Your task to perform on an android device: open app "Expedia: Hotels, Flights & Car" (install if not already installed) and go to login screen Image 0: 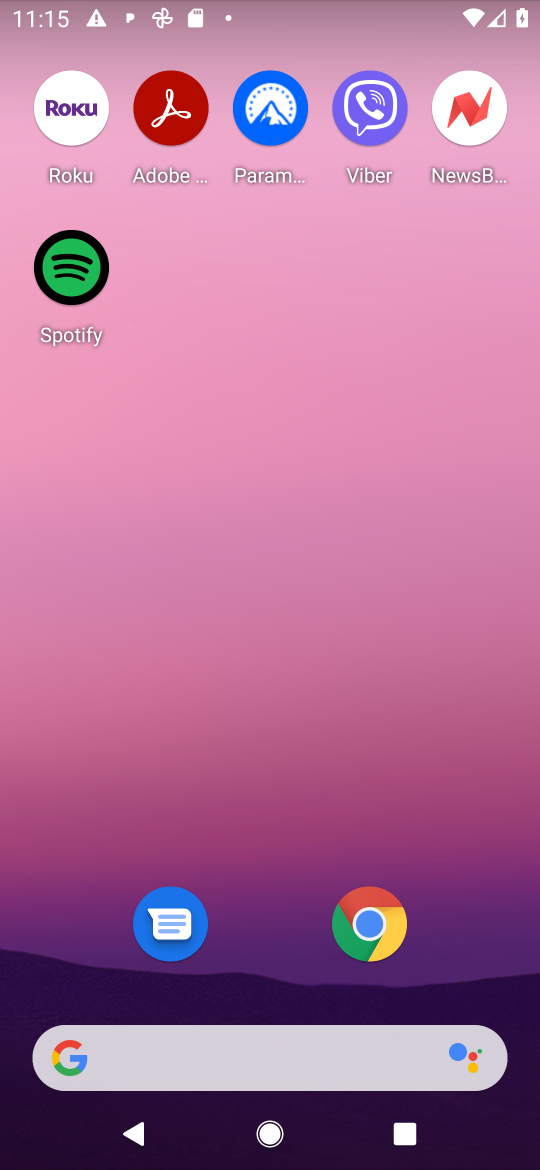
Step 0: press home button
Your task to perform on an android device: open app "Expedia: Hotels, Flights & Car" (install if not already installed) and go to login screen Image 1: 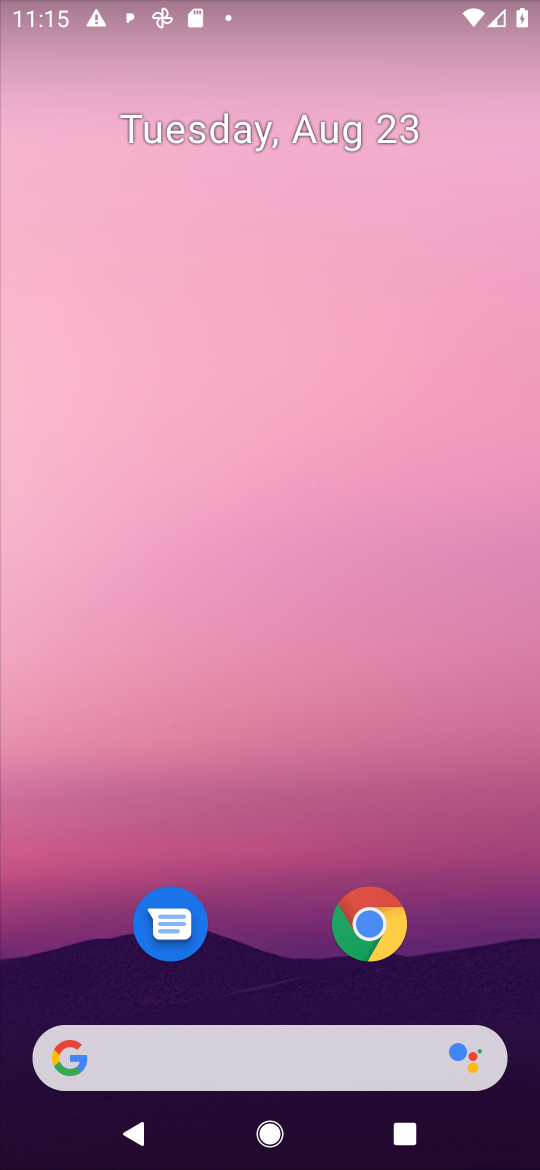
Step 1: drag from (477, 969) to (485, 166)
Your task to perform on an android device: open app "Expedia: Hotels, Flights & Car" (install if not already installed) and go to login screen Image 2: 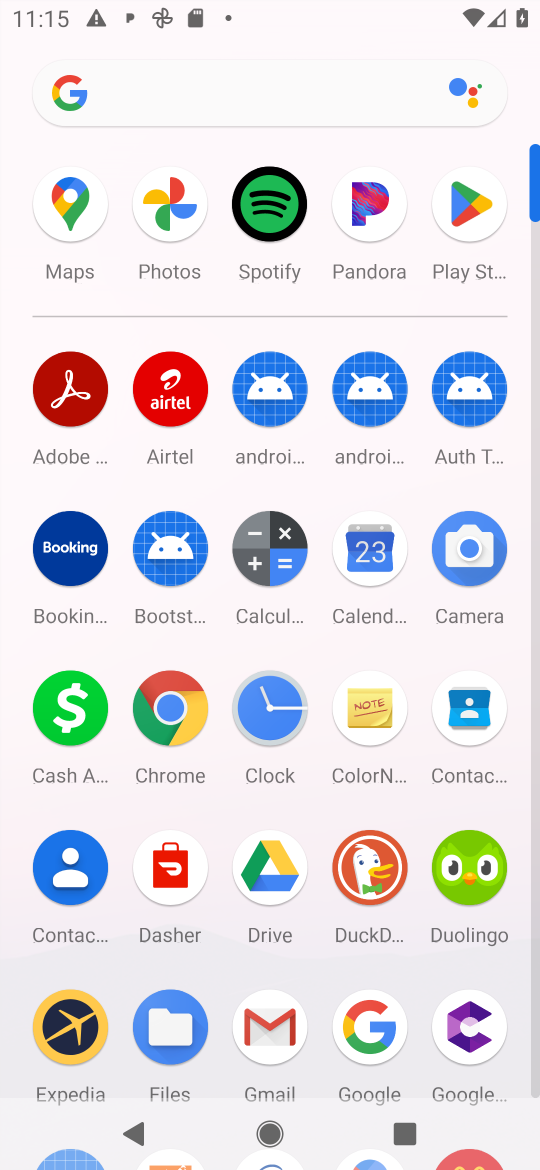
Step 2: click (465, 198)
Your task to perform on an android device: open app "Expedia: Hotels, Flights & Car" (install if not already installed) and go to login screen Image 3: 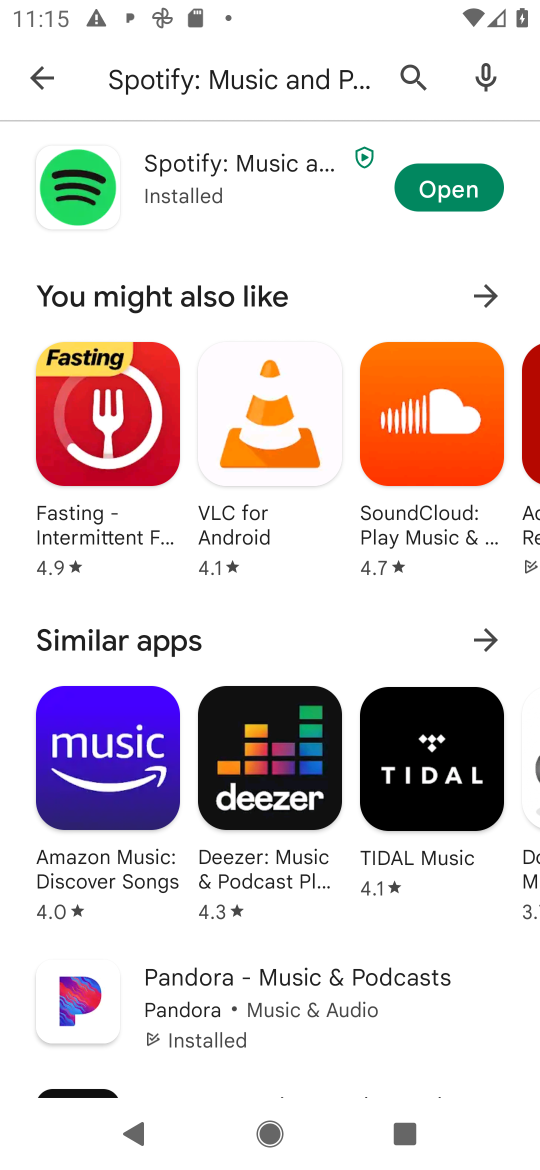
Step 3: press back button
Your task to perform on an android device: open app "Expedia: Hotels, Flights & Car" (install if not already installed) and go to login screen Image 4: 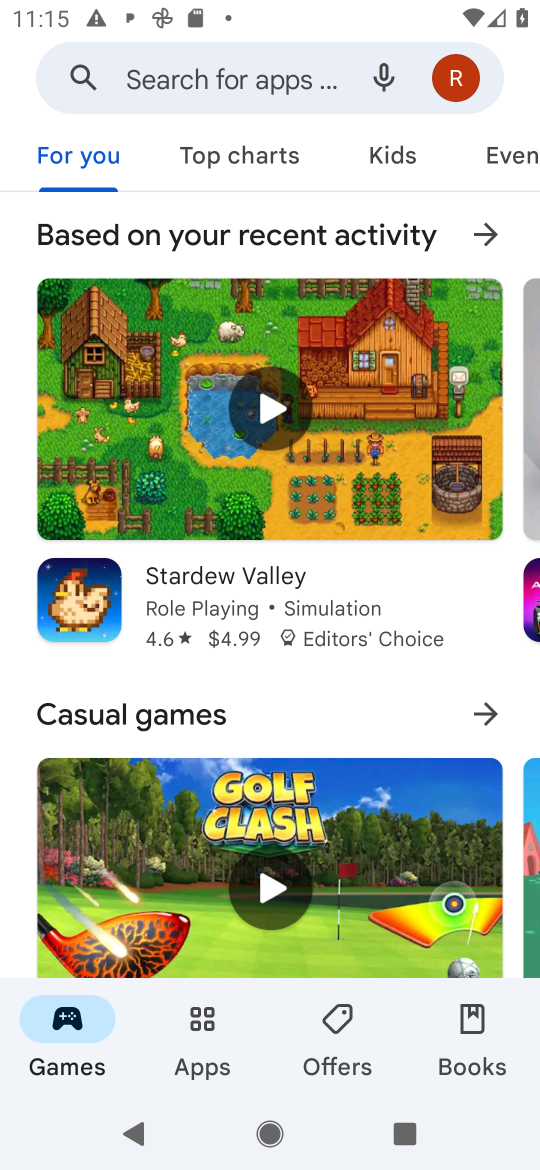
Step 4: click (247, 89)
Your task to perform on an android device: open app "Expedia: Hotels, Flights & Car" (install if not already installed) and go to login screen Image 5: 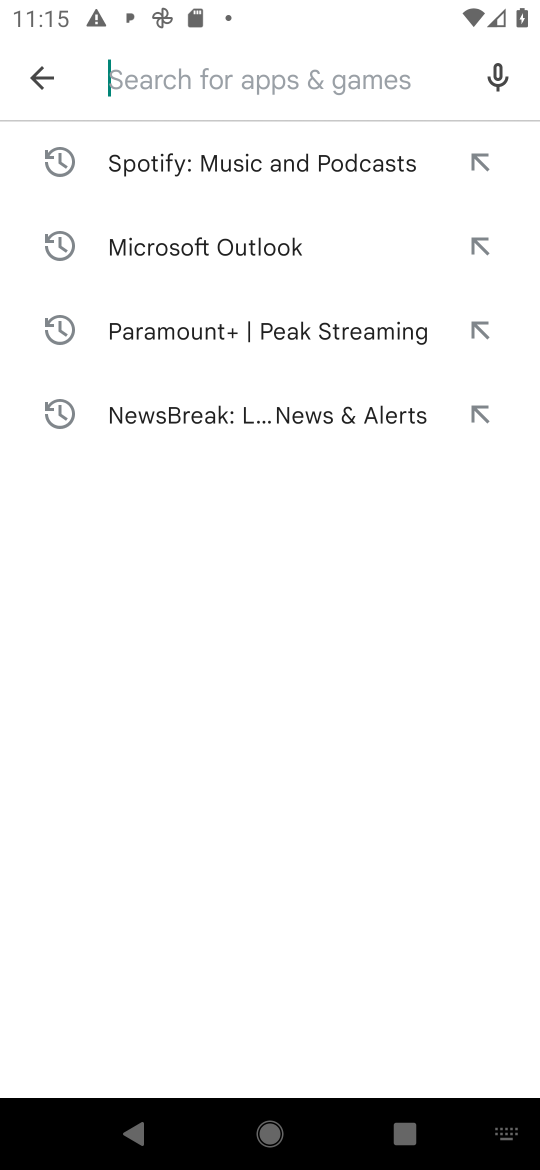
Step 5: press enter
Your task to perform on an android device: open app "Expedia: Hotels, Flights & Car" (install if not already installed) and go to login screen Image 6: 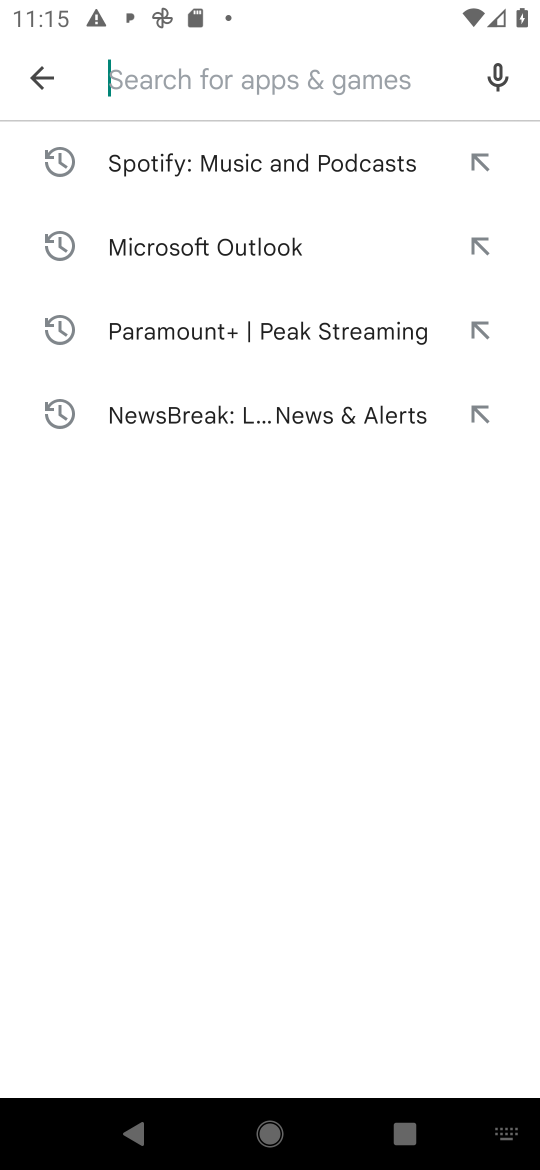
Step 6: type "Expedia: Hotels, Flights & Car"
Your task to perform on an android device: open app "Expedia: Hotels, Flights & Car" (install if not already installed) and go to login screen Image 7: 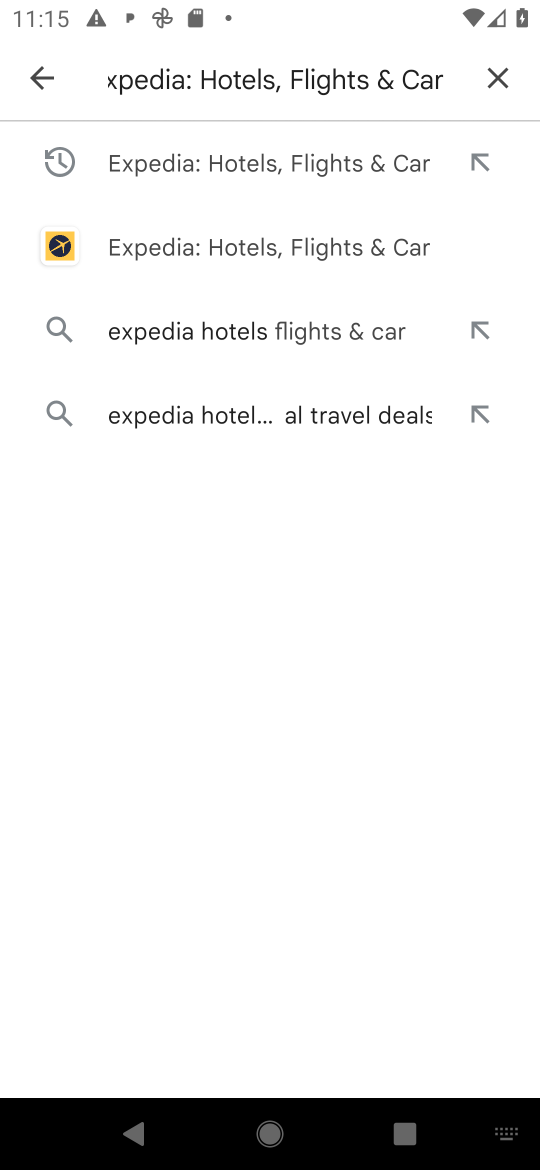
Step 7: click (323, 242)
Your task to perform on an android device: open app "Expedia: Hotels, Flights & Car" (install if not already installed) and go to login screen Image 8: 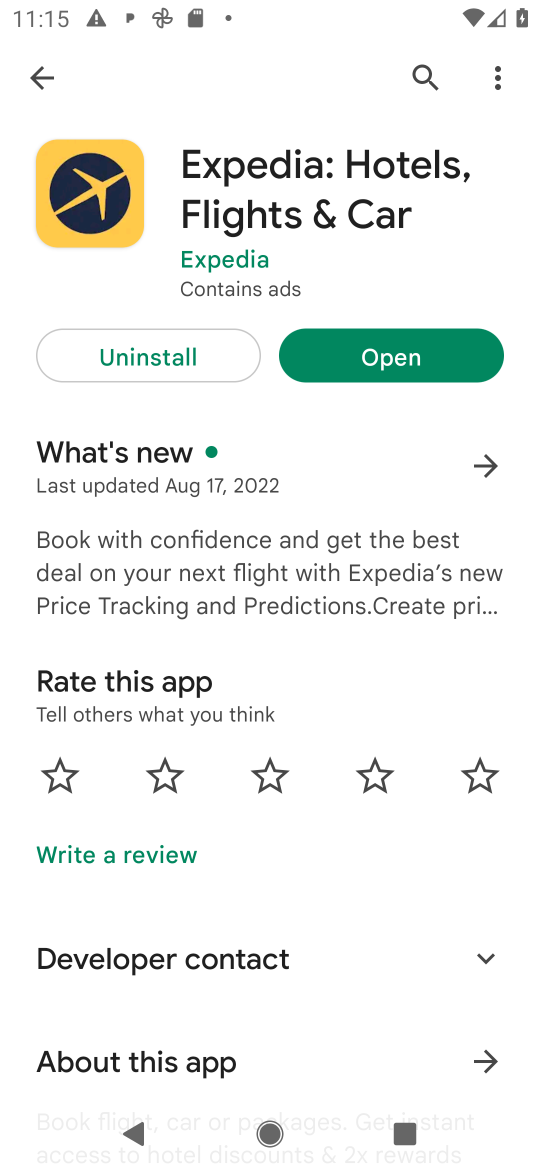
Step 8: click (463, 362)
Your task to perform on an android device: open app "Expedia: Hotels, Flights & Car" (install if not already installed) and go to login screen Image 9: 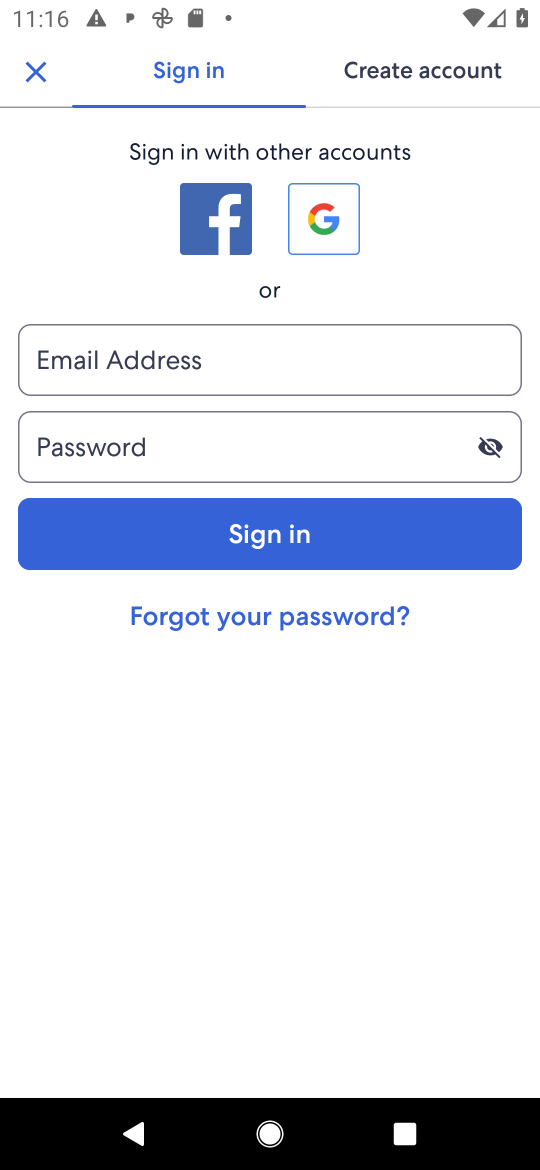
Step 9: task complete